Your task to perform on an android device: change the upload size in google photos Image 0: 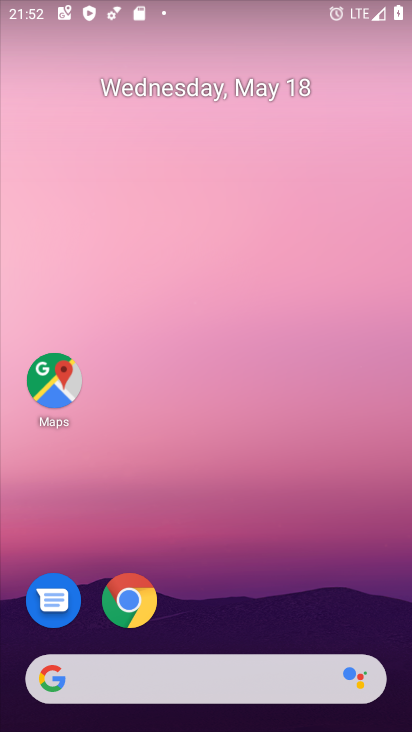
Step 0: drag from (168, 626) to (299, 35)
Your task to perform on an android device: change the upload size in google photos Image 1: 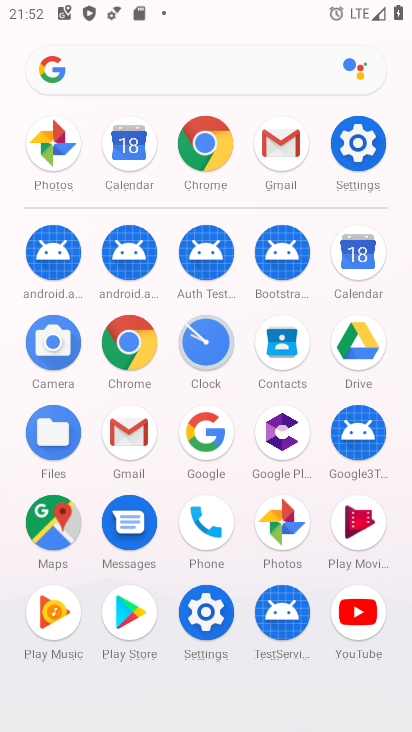
Step 1: click (285, 531)
Your task to perform on an android device: change the upload size in google photos Image 2: 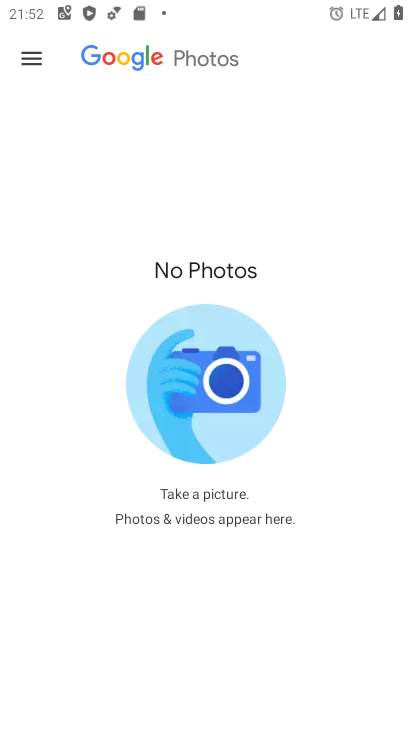
Step 2: click (34, 58)
Your task to perform on an android device: change the upload size in google photos Image 3: 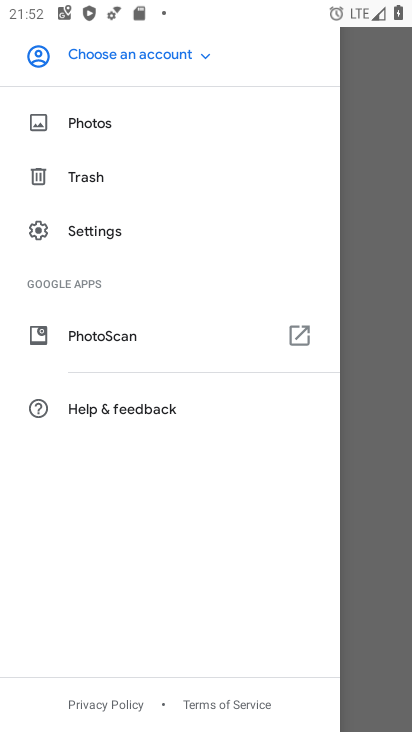
Step 3: click (88, 228)
Your task to perform on an android device: change the upload size in google photos Image 4: 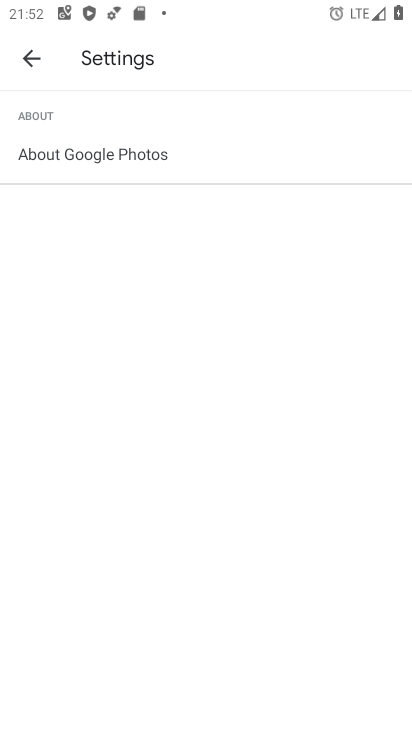
Step 4: click (30, 54)
Your task to perform on an android device: change the upload size in google photos Image 5: 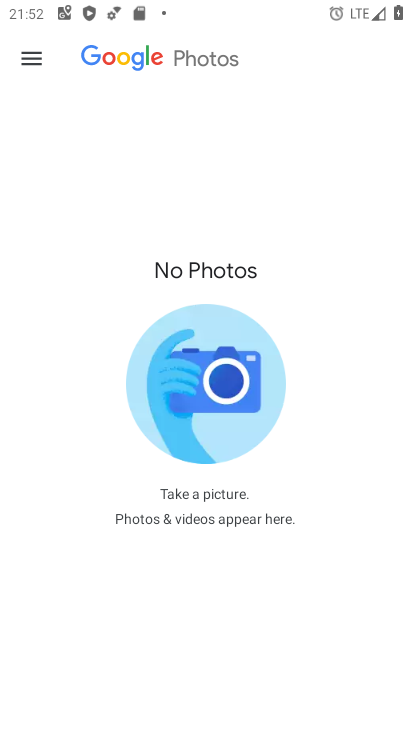
Step 5: click (42, 51)
Your task to perform on an android device: change the upload size in google photos Image 6: 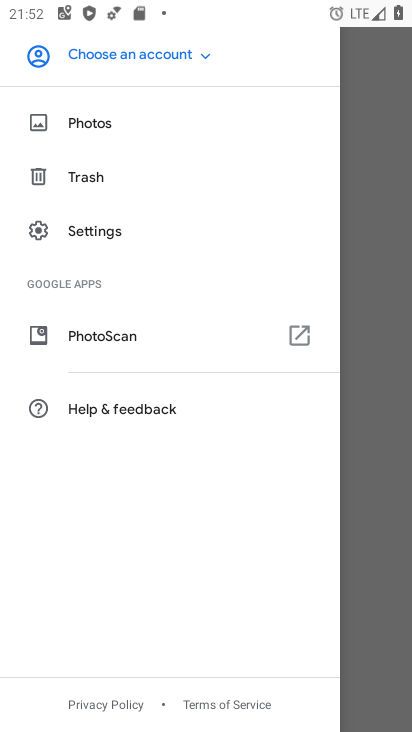
Step 6: click (93, 228)
Your task to perform on an android device: change the upload size in google photos Image 7: 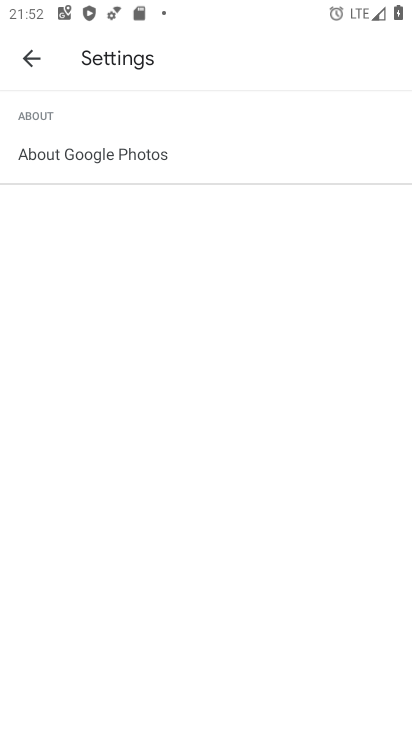
Step 7: task complete